Your task to perform on an android device: open app "ZOOM Cloud Meetings" (install if not already installed) Image 0: 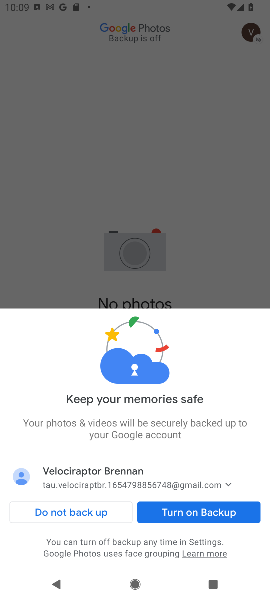
Step 0: press home button
Your task to perform on an android device: open app "ZOOM Cloud Meetings" (install if not already installed) Image 1: 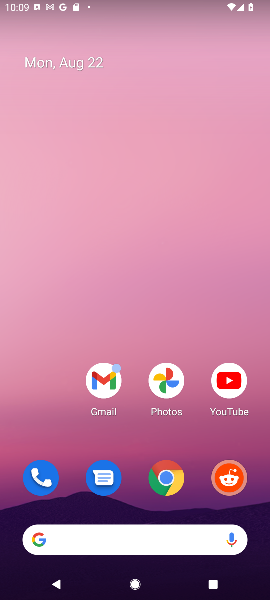
Step 1: drag from (137, 517) to (159, 71)
Your task to perform on an android device: open app "ZOOM Cloud Meetings" (install if not already installed) Image 2: 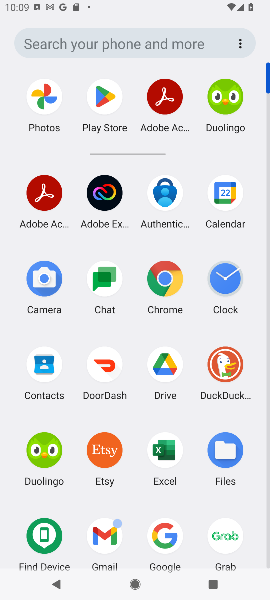
Step 2: click (111, 92)
Your task to perform on an android device: open app "ZOOM Cloud Meetings" (install if not already installed) Image 3: 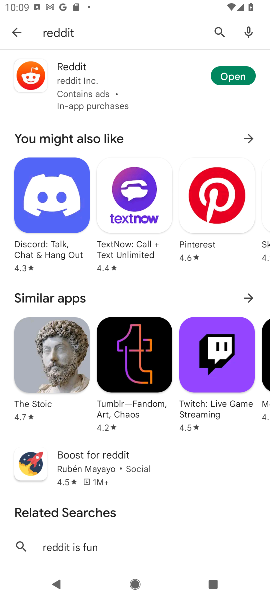
Step 3: click (213, 33)
Your task to perform on an android device: open app "ZOOM Cloud Meetings" (install if not already installed) Image 4: 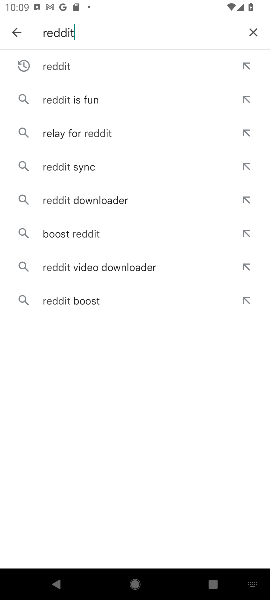
Step 4: click (251, 41)
Your task to perform on an android device: open app "ZOOM Cloud Meetings" (install if not already installed) Image 5: 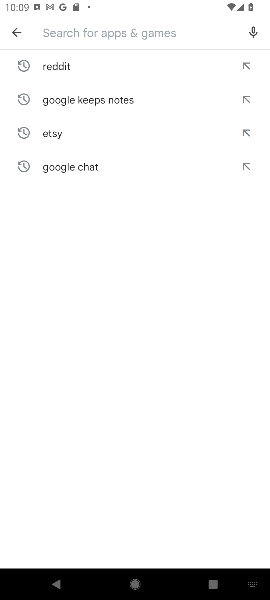
Step 5: type "zoom cloud"
Your task to perform on an android device: open app "ZOOM Cloud Meetings" (install if not already installed) Image 6: 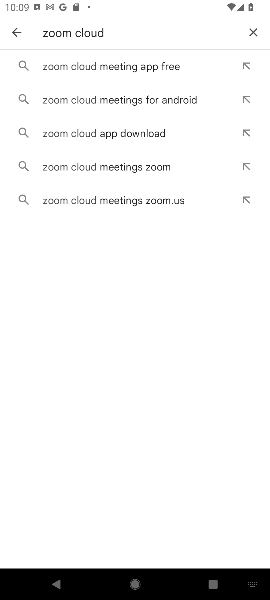
Step 6: click (70, 67)
Your task to perform on an android device: open app "ZOOM Cloud Meetings" (install if not already installed) Image 7: 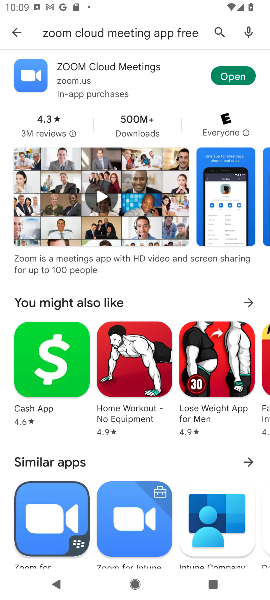
Step 7: click (233, 74)
Your task to perform on an android device: open app "ZOOM Cloud Meetings" (install if not already installed) Image 8: 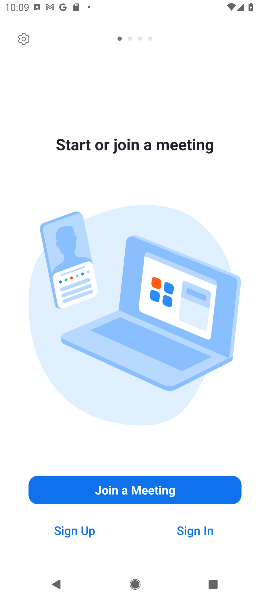
Step 8: task complete